Your task to perform on an android device: Open wifi settings Image 0: 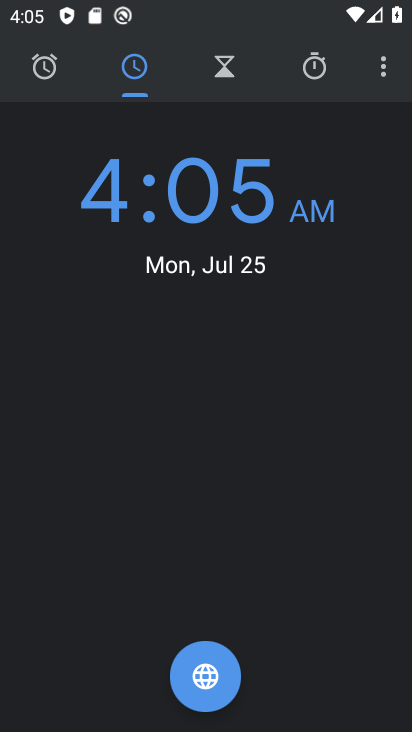
Step 0: press home button
Your task to perform on an android device: Open wifi settings Image 1: 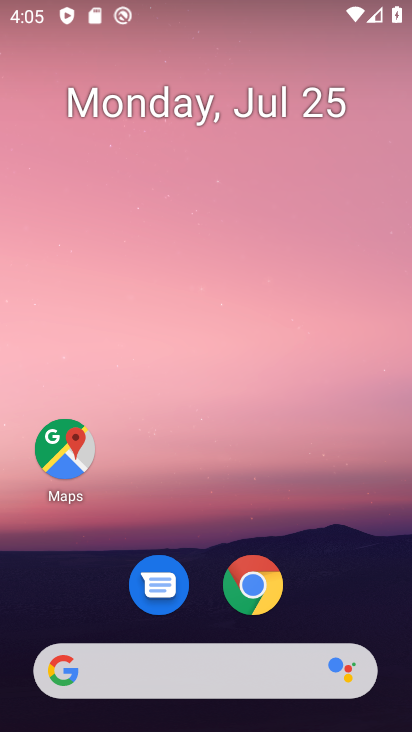
Step 1: drag from (330, 589) to (335, 66)
Your task to perform on an android device: Open wifi settings Image 2: 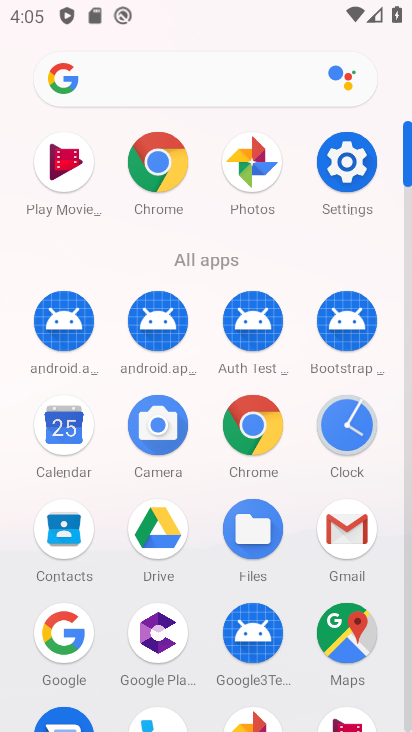
Step 2: click (341, 161)
Your task to perform on an android device: Open wifi settings Image 3: 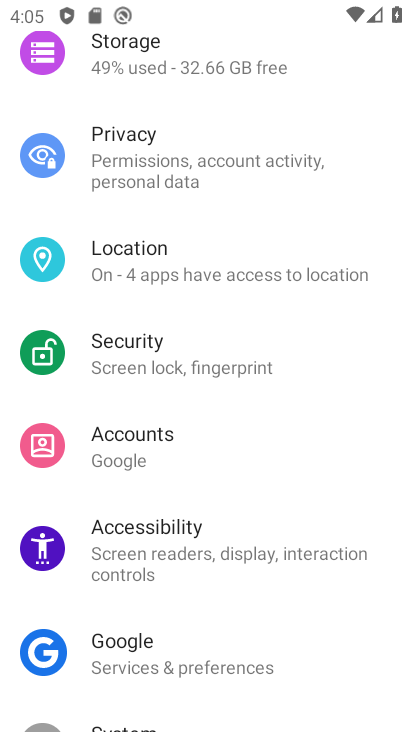
Step 3: drag from (222, 110) to (207, 581)
Your task to perform on an android device: Open wifi settings Image 4: 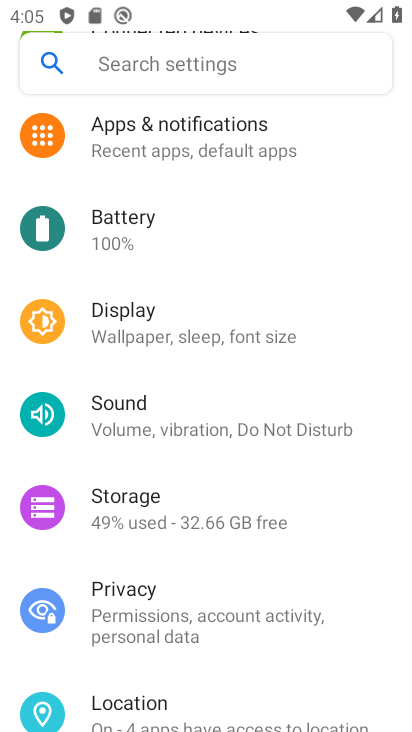
Step 4: drag from (238, 241) to (262, 655)
Your task to perform on an android device: Open wifi settings Image 5: 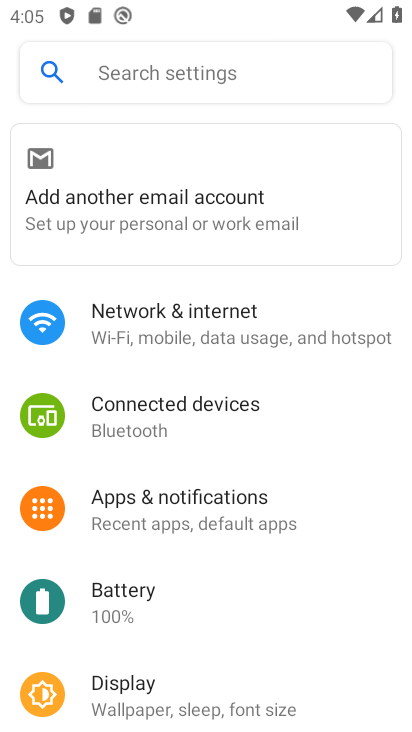
Step 5: click (224, 340)
Your task to perform on an android device: Open wifi settings Image 6: 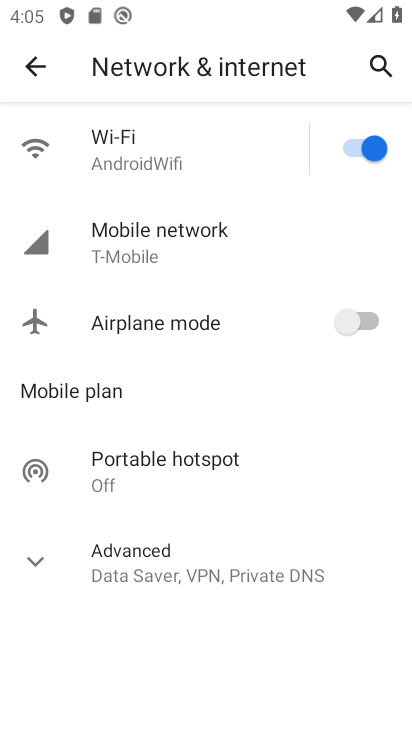
Step 6: click (136, 146)
Your task to perform on an android device: Open wifi settings Image 7: 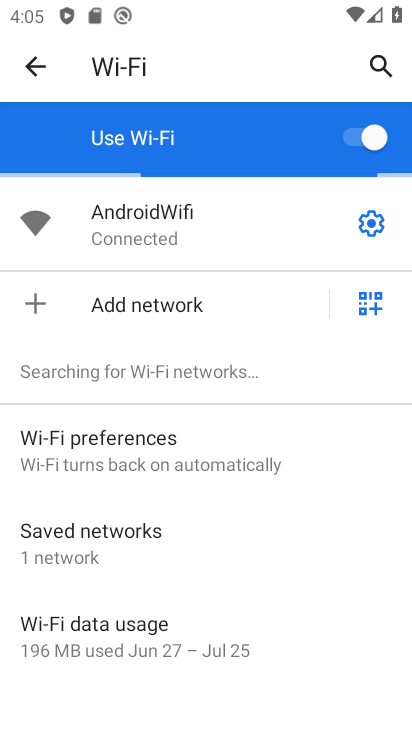
Step 7: task complete